Your task to perform on an android device: What is the news today? Image 0: 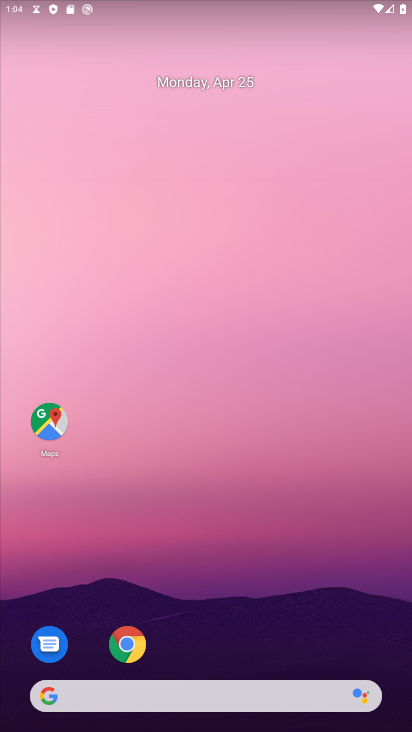
Step 0: drag from (24, 230) to (382, 270)
Your task to perform on an android device: What is the news today? Image 1: 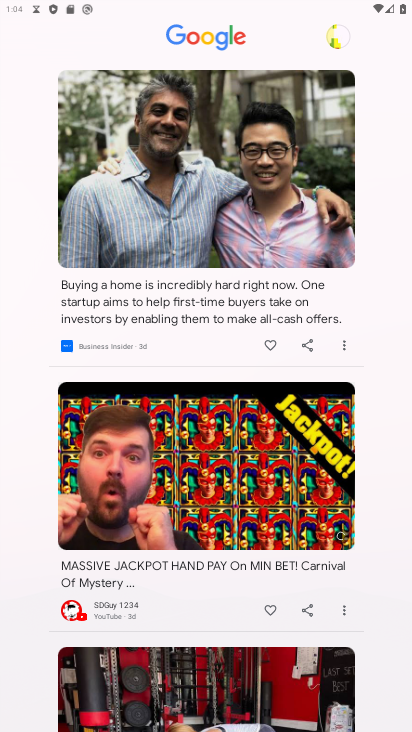
Step 1: task complete